Your task to perform on an android device: Toggle the flashlight Image 0: 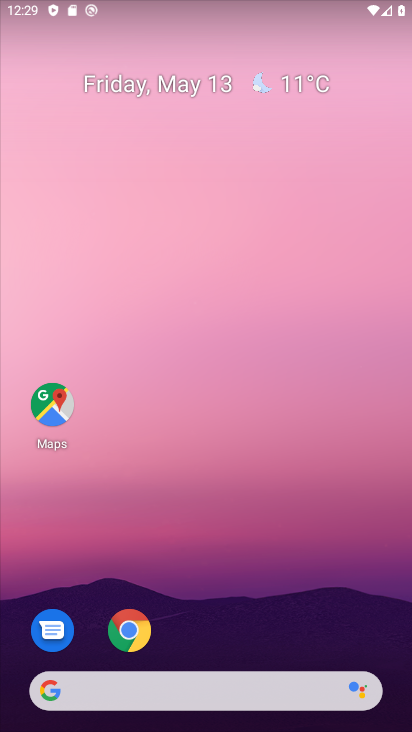
Step 0: drag from (43, 630) to (332, 87)
Your task to perform on an android device: Toggle the flashlight Image 1: 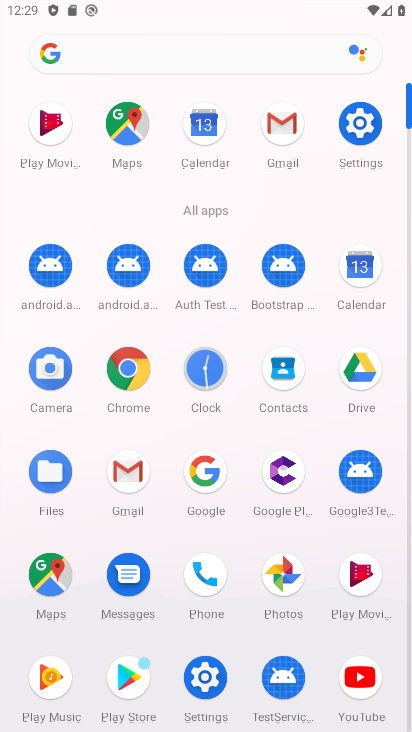
Step 1: click (339, 126)
Your task to perform on an android device: Toggle the flashlight Image 2: 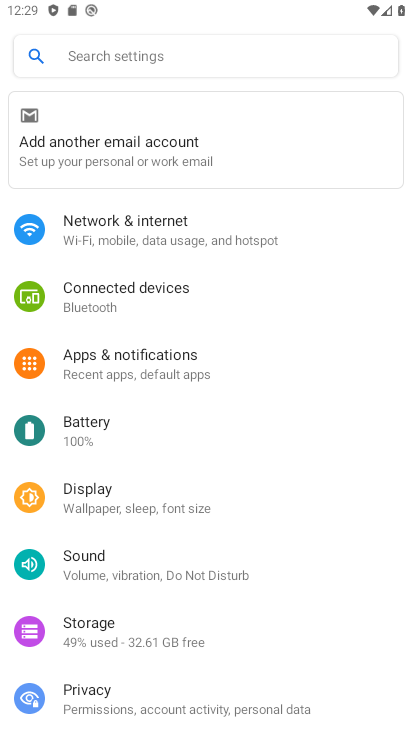
Step 2: click (120, 492)
Your task to perform on an android device: Toggle the flashlight Image 3: 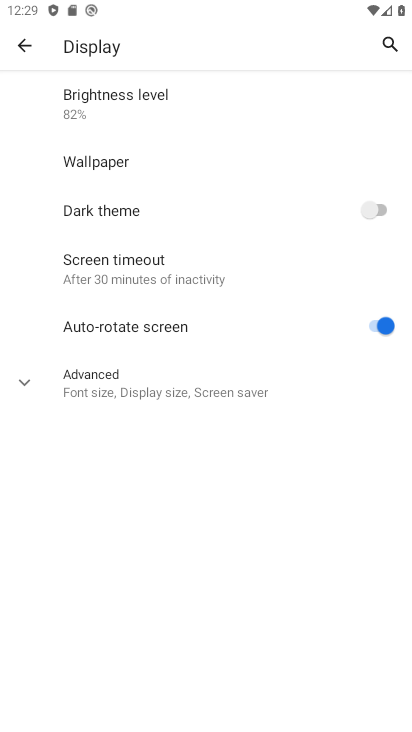
Step 3: task complete